Your task to perform on an android device: Search for asus rog on amazon, select the first entry, add it to the cart, then select checkout. Image 0: 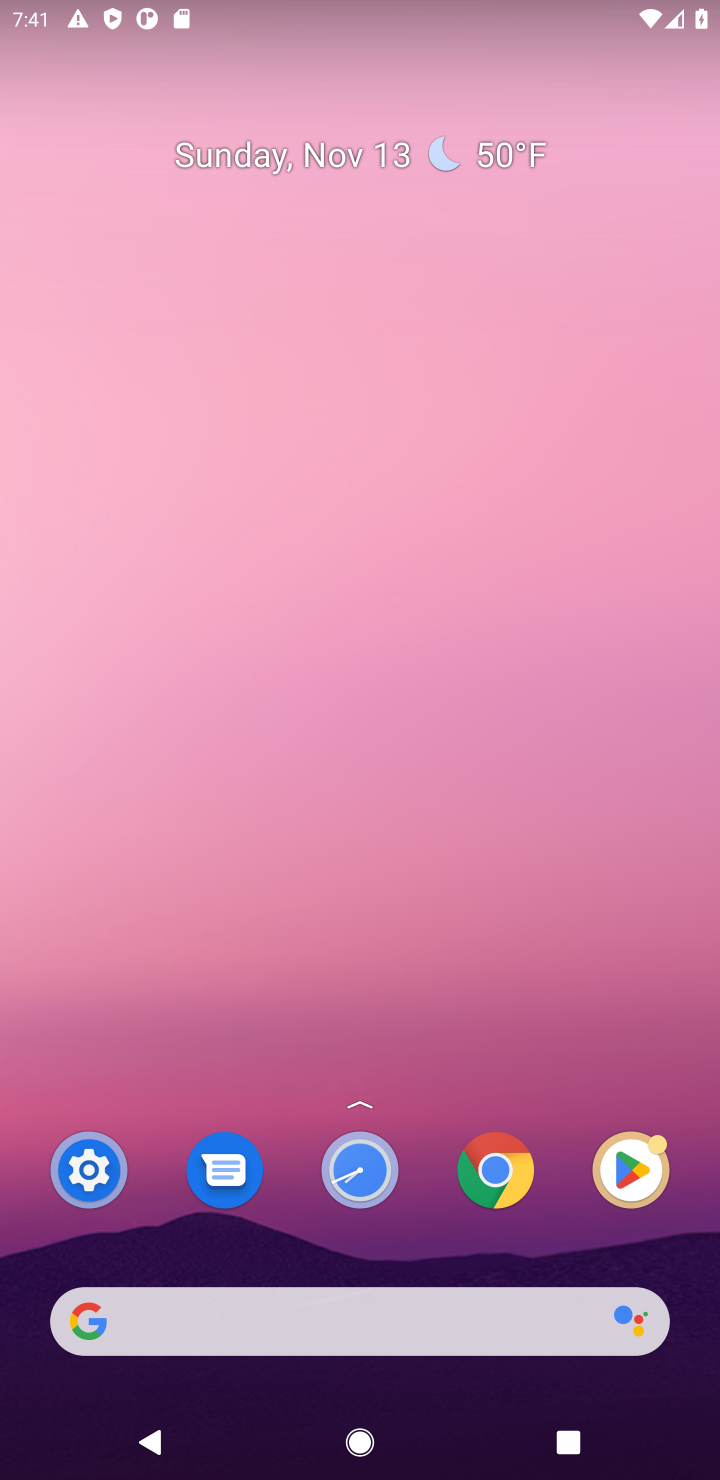
Step 0: click (409, 1339)
Your task to perform on an android device: Search for asus rog on amazon, select the first entry, add it to the cart, then select checkout. Image 1: 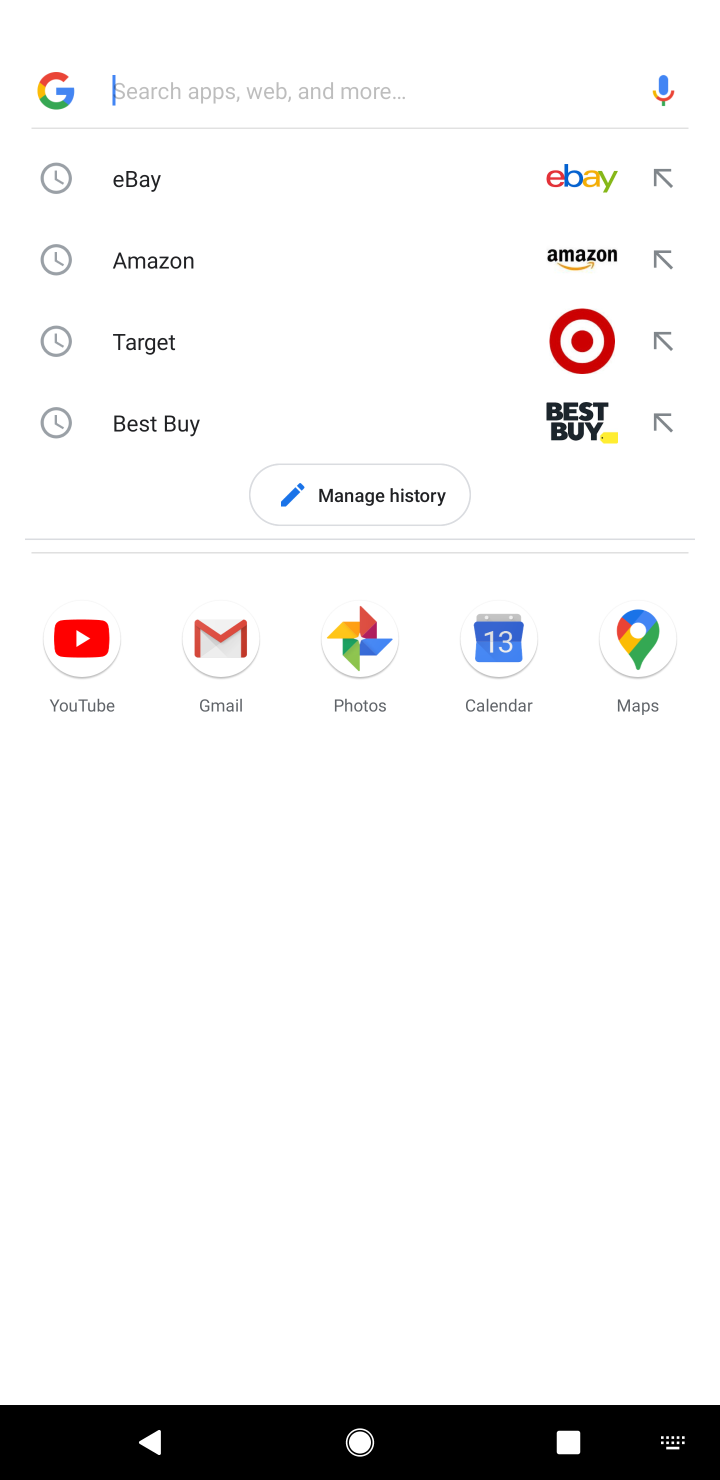
Step 1: click (260, 260)
Your task to perform on an android device: Search for asus rog on amazon, select the first entry, add it to the cart, then select checkout. Image 2: 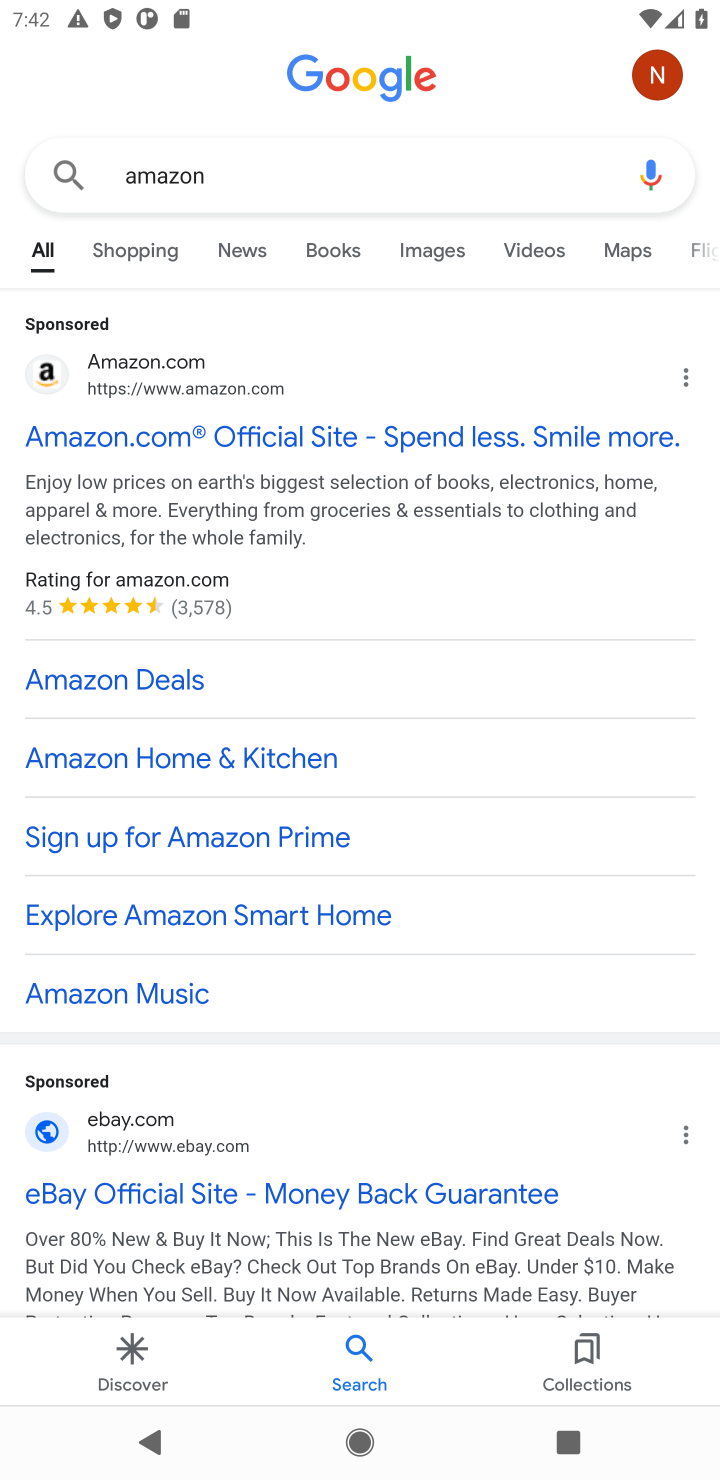
Step 2: click (188, 438)
Your task to perform on an android device: Search for asus rog on amazon, select the first entry, add it to the cart, then select checkout. Image 3: 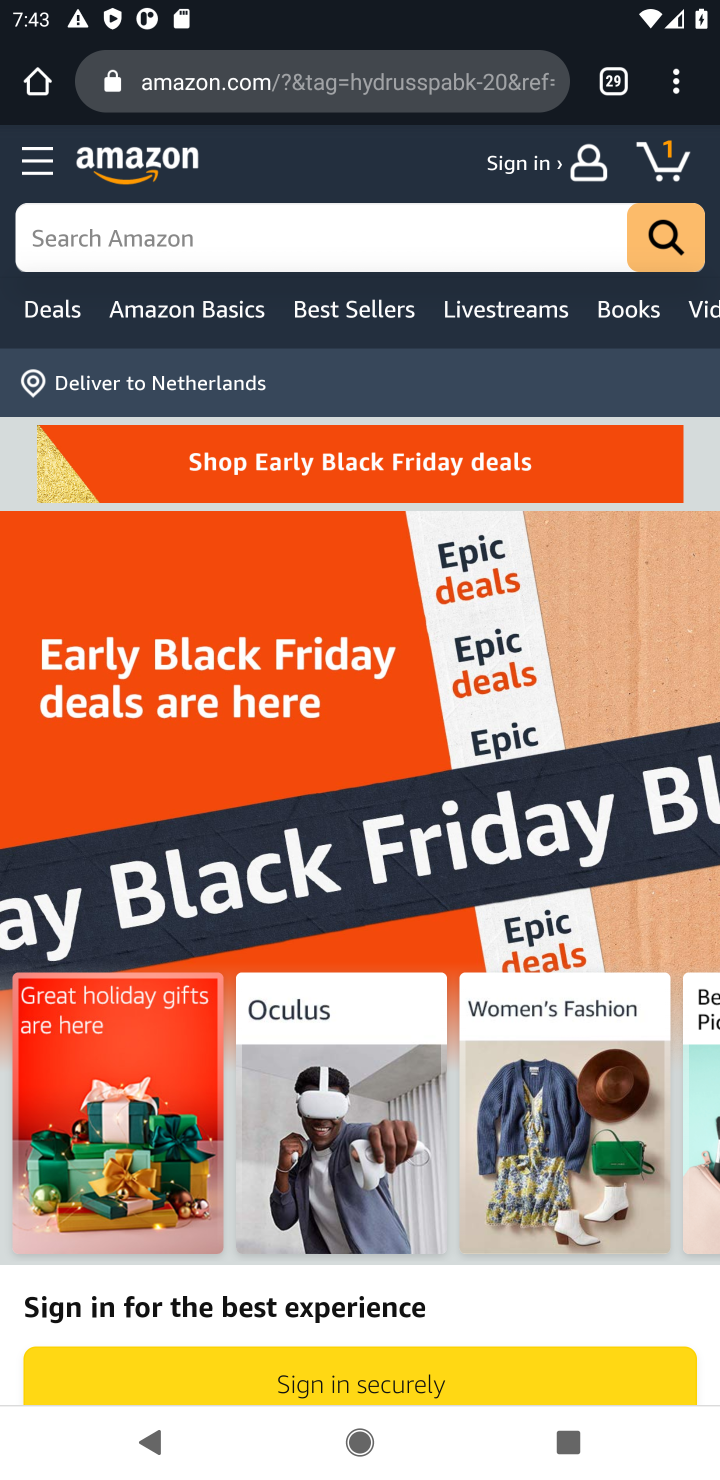
Step 3: click (171, 261)
Your task to perform on an android device: Search for asus rog on amazon, select the first entry, add it to the cart, then select checkout. Image 4: 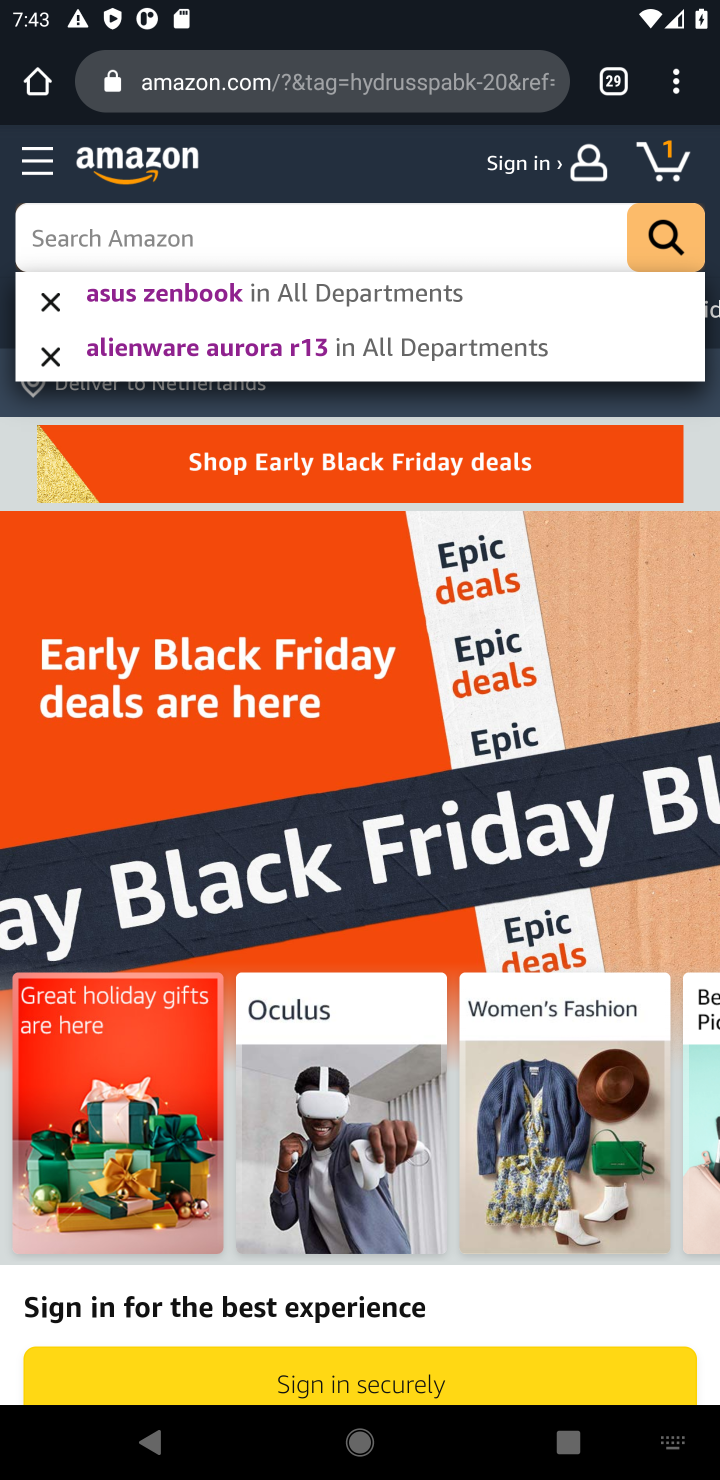
Step 4: type "aus rog"
Your task to perform on an android device: Search for asus rog on amazon, select the first entry, add it to the cart, then select checkout. Image 5: 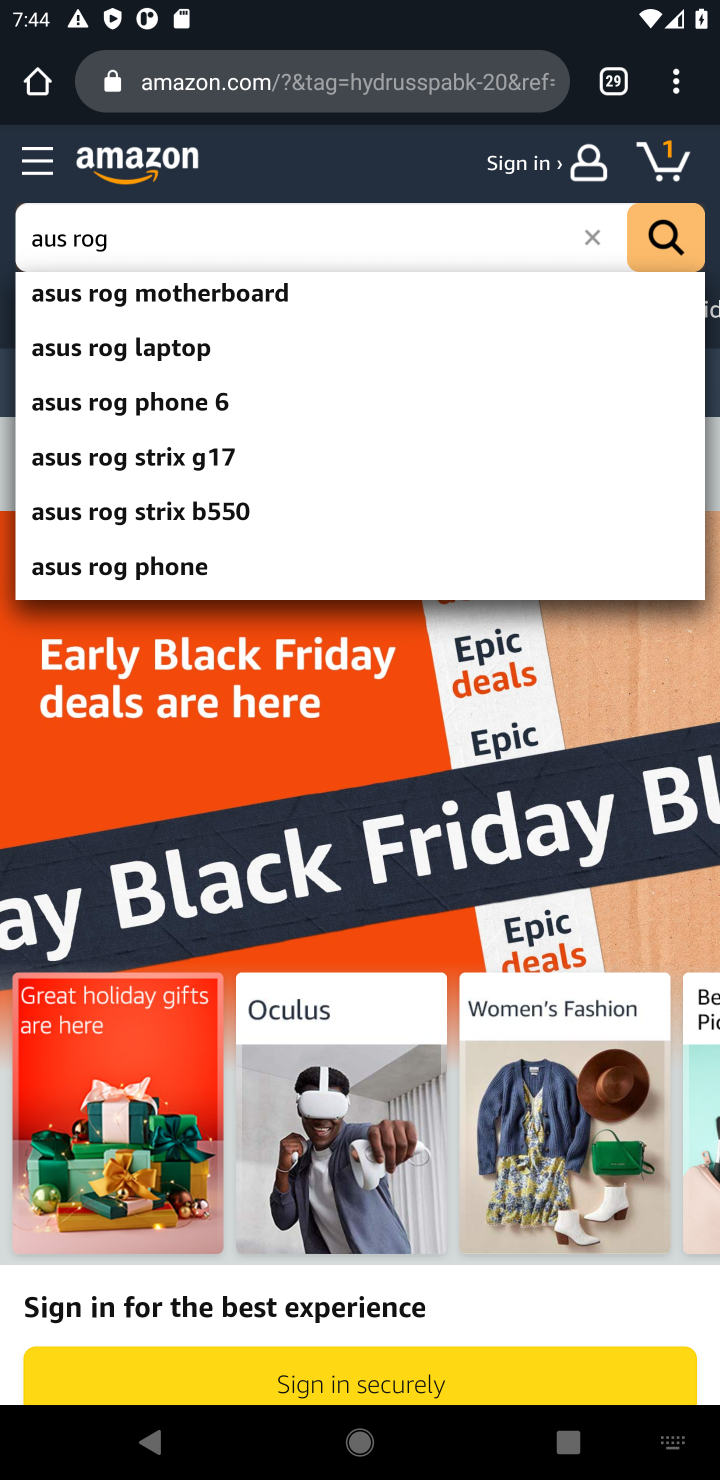
Step 5: click (149, 345)
Your task to perform on an android device: Search for asus rog on amazon, select the first entry, add it to the cart, then select checkout. Image 6: 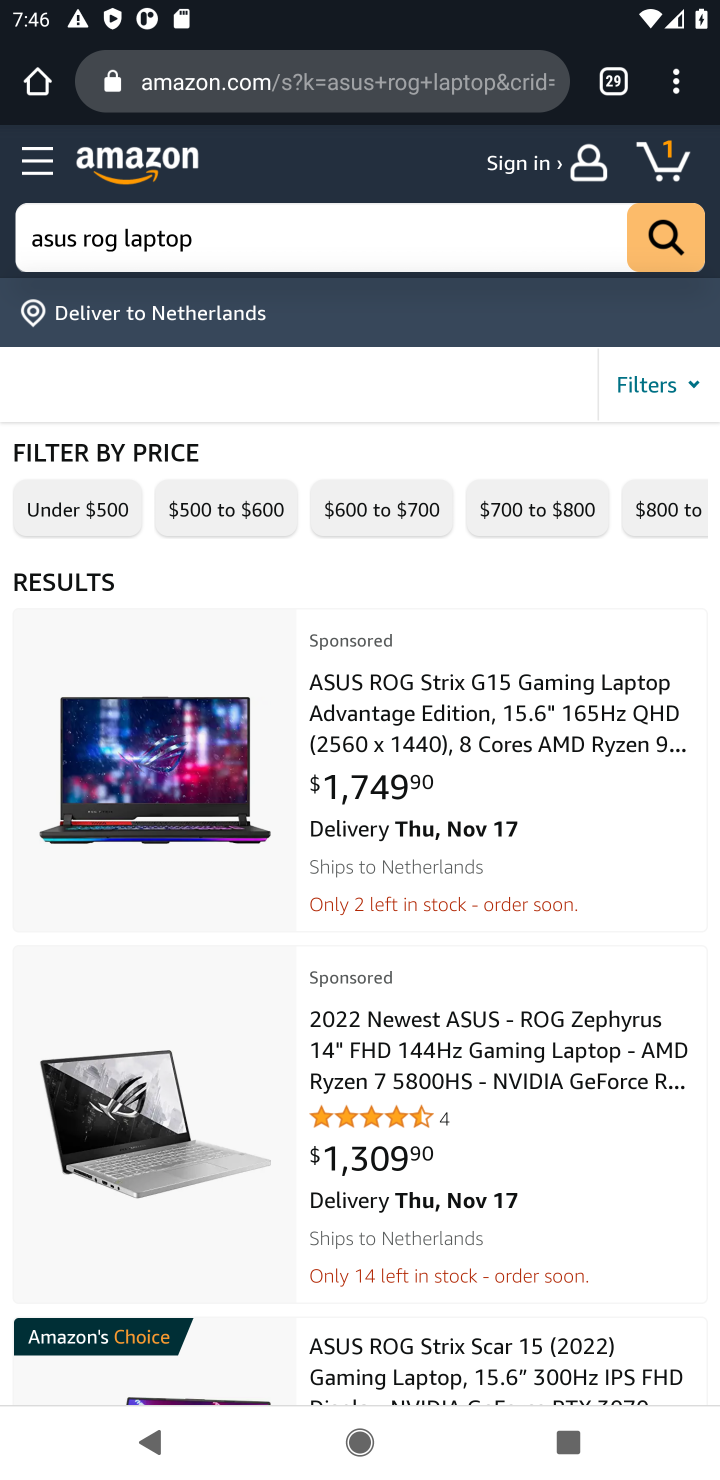
Step 6: click (260, 653)
Your task to perform on an android device: Search for asus rog on amazon, select the first entry, add it to the cart, then select checkout. Image 7: 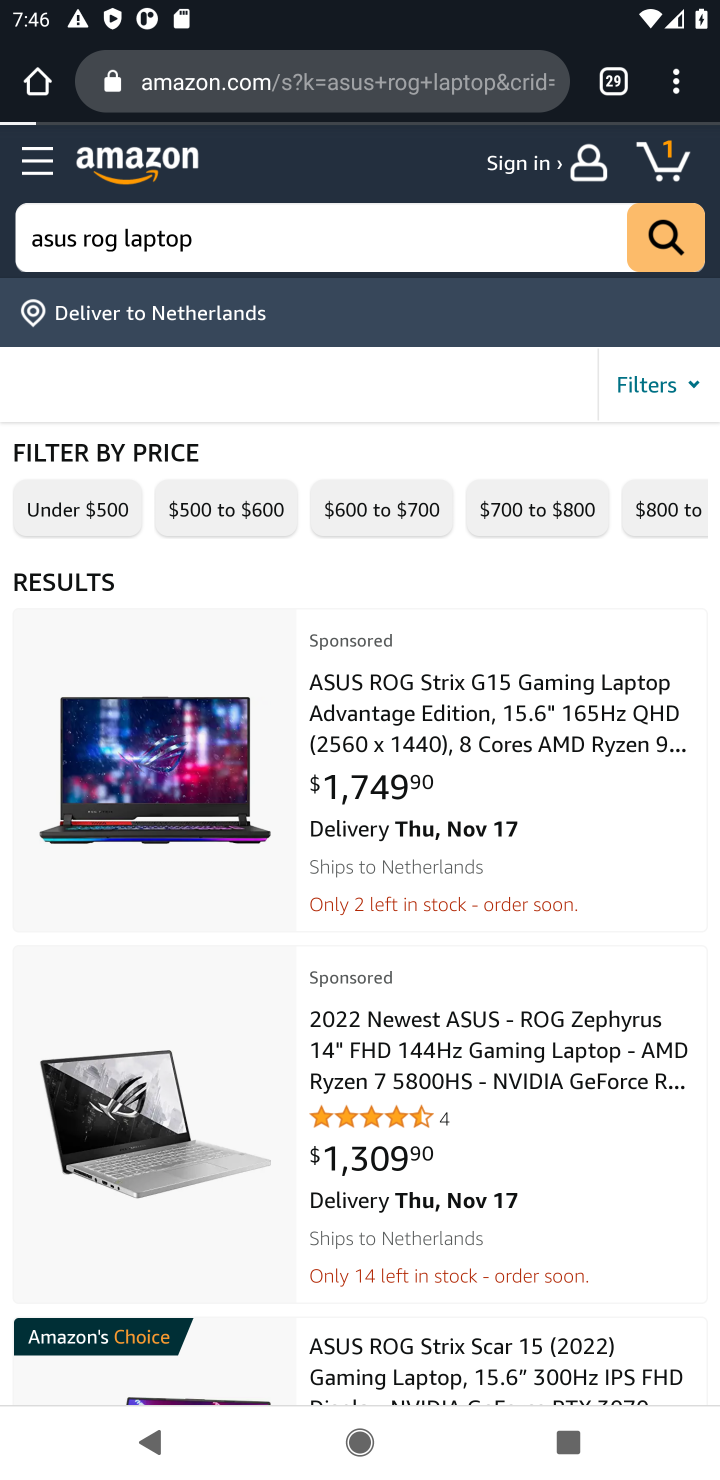
Step 7: task complete